Your task to perform on an android device: turn on data saver in the chrome app Image 0: 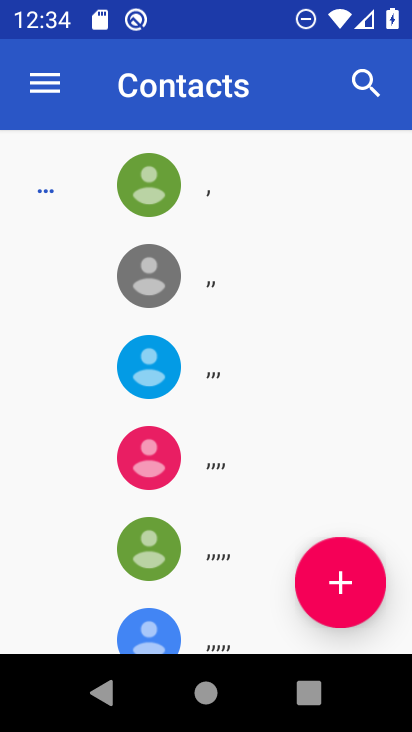
Step 0: press home button
Your task to perform on an android device: turn on data saver in the chrome app Image 1: 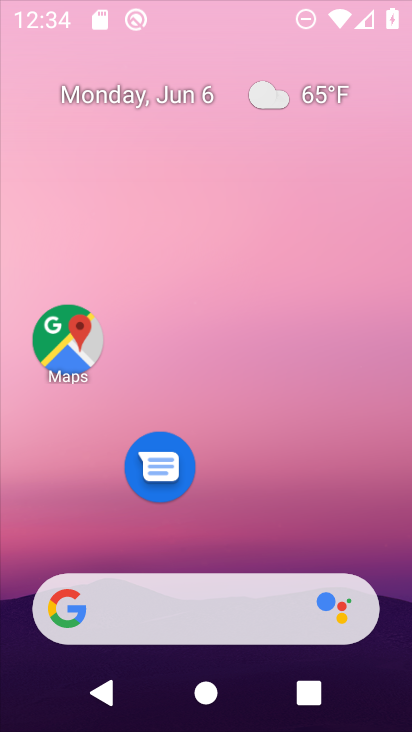
Step 1: click (341, 4)
Your task to perform on an android device: turn on data saver in the chrome app Image 2: 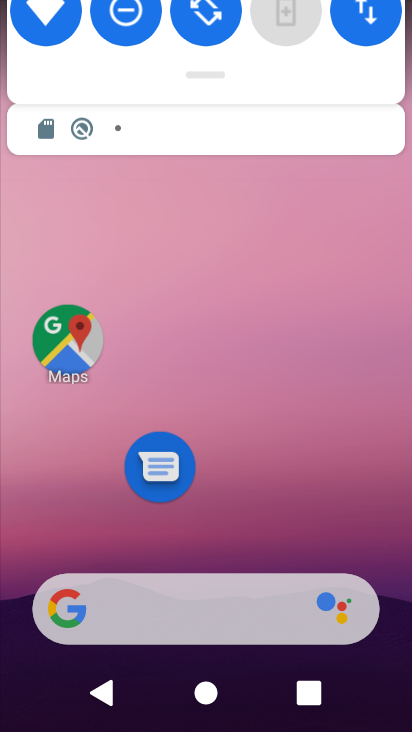
Step 2: drag from (240, 509) to (258, 10)
Your task to perform on an android device: turn on data saver in the chrome app Image 3: 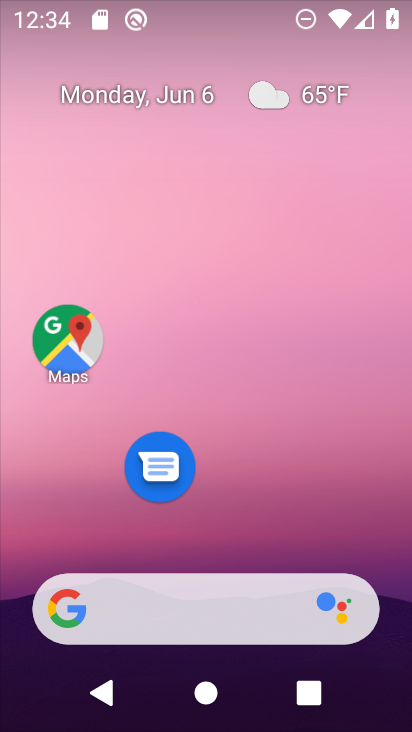
Step 3: drag from (285, 476) to (356, 5)
Your task to perform on an android device: turn on data saver in the chrome app Image 4: 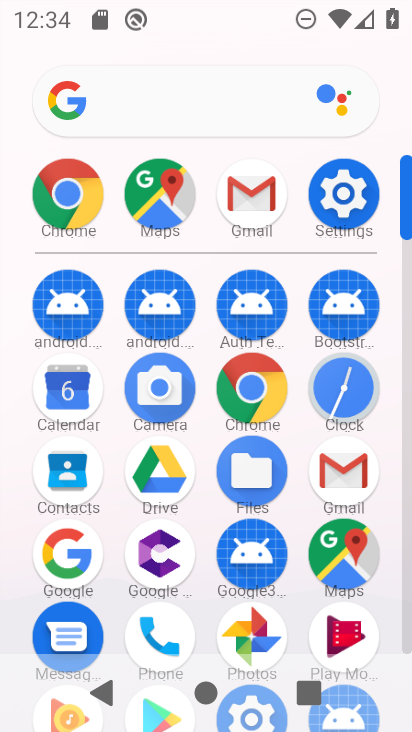
Step 4: click (80, 190)
Your task to perform on an android device: turn on data saver in the chrome app Image 5: 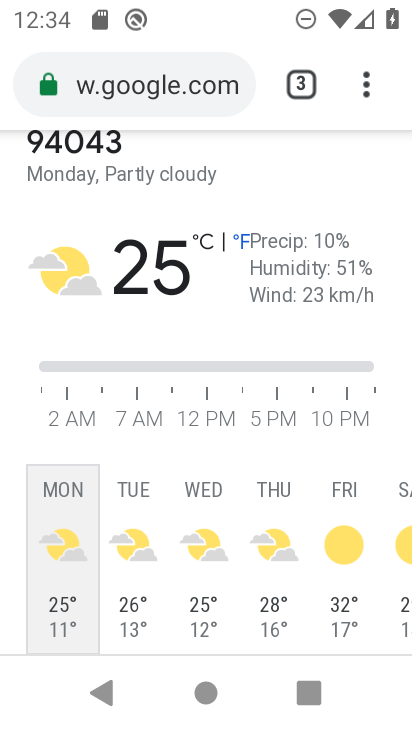
Step 5: drag from (367, 76) to (136, 520)
Your task to perform on an android device: turn on data saver in the chrome app Image 6: 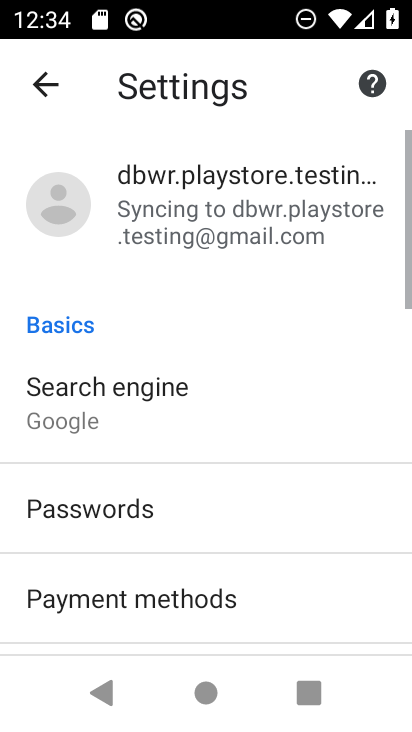
Step 6: drag from (212, 592) to (200, 77)
Your task to perform on an android device: turn on data saver in the chrome app Image 7: 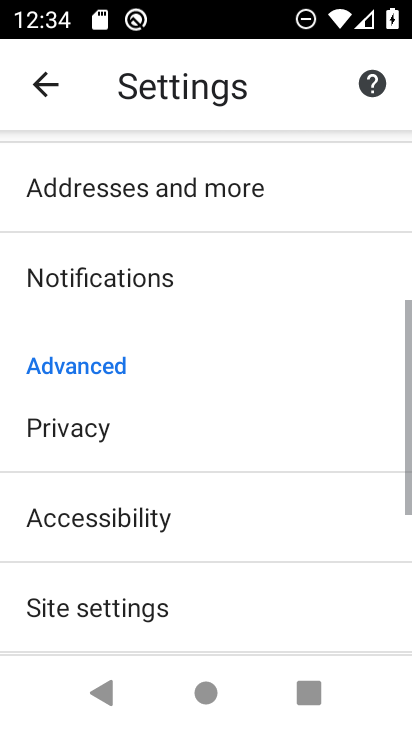
Step 7: drag from (206, 491) to (215, 54)
Your task to perform on an android device: turn on data saver in the chrome app Image 8: 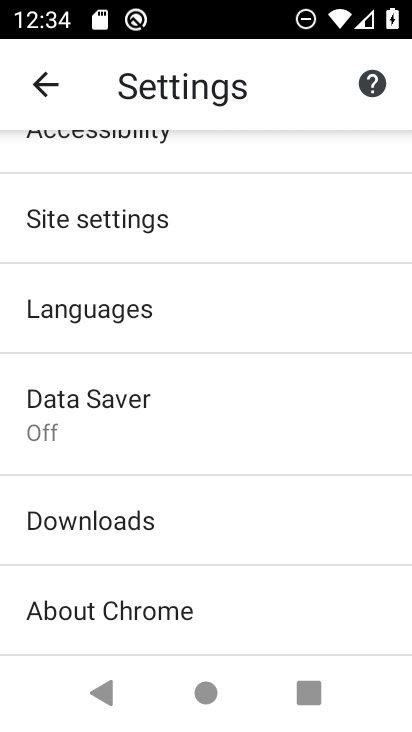
Step 8: click (124, 418)
Your task to perform on an android device: turn on data saver in the chrome app Image 9: 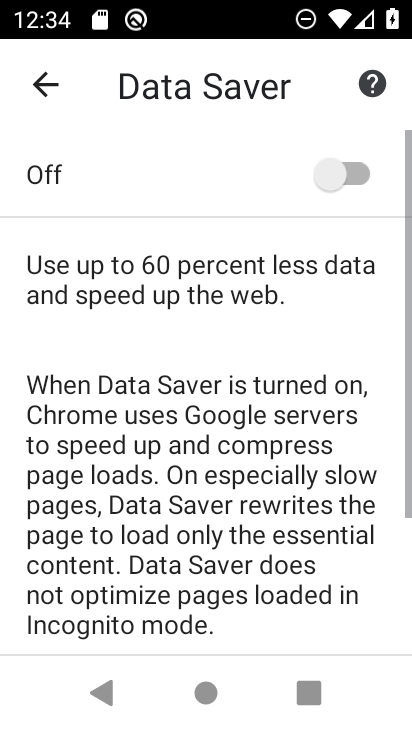
Step 9: click (251, 204)
Your task to perform on an android device: turn on data saver in the chrome app Image 10: 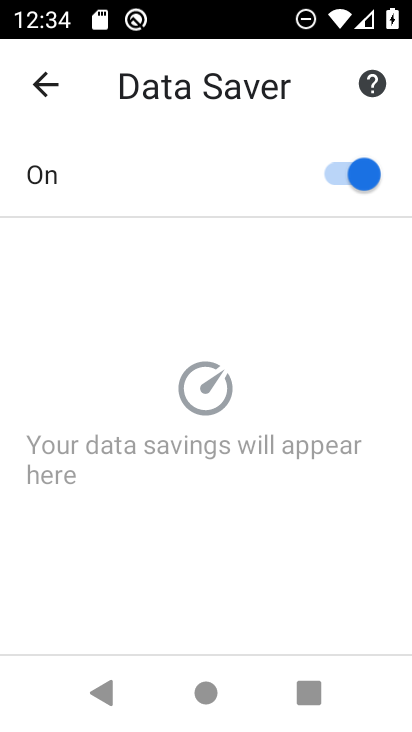
Step 10: task complete